Your task to perform on an android device: uninstall "VLC for Android" Image 0: 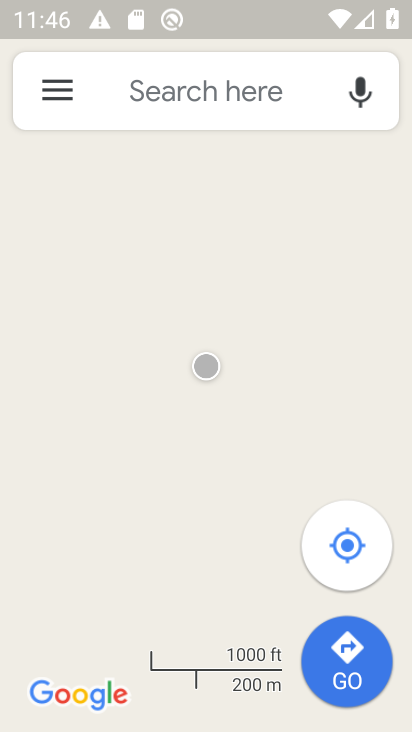
Step 0: press home button
Your task to perform on an android device: uninstall "VLC for Android" Image 1: 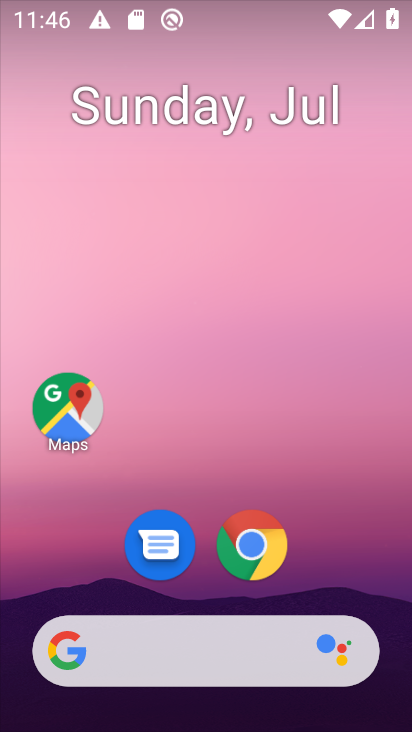
Step 1: drag from (175, 463) to (186, 344)
Your task to perform on an android device: uninstall "VLC for Android" Image 2: 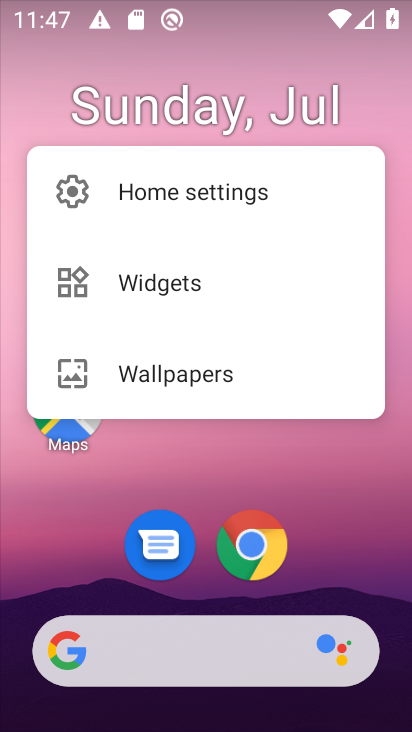
Step 2: drag from (192, 614) to (253, 4)
Your task to perform on an android device: uninstall "VLC for Android" Image 3: 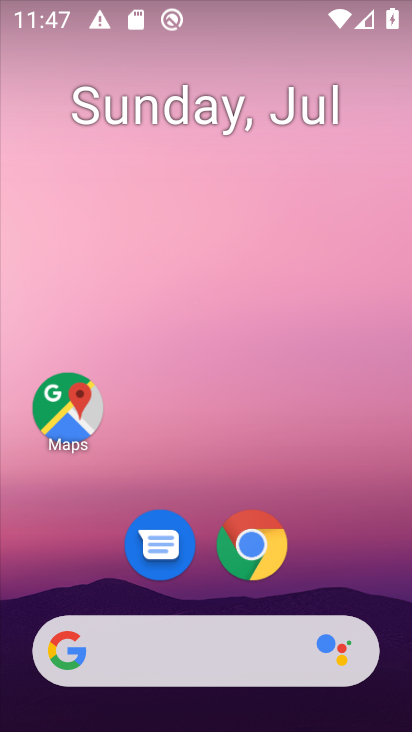
Step 3: drag from (174, 615) to (175, 442)
Your task to perform on an android device: uninstall "VLC for Android" Image 4: 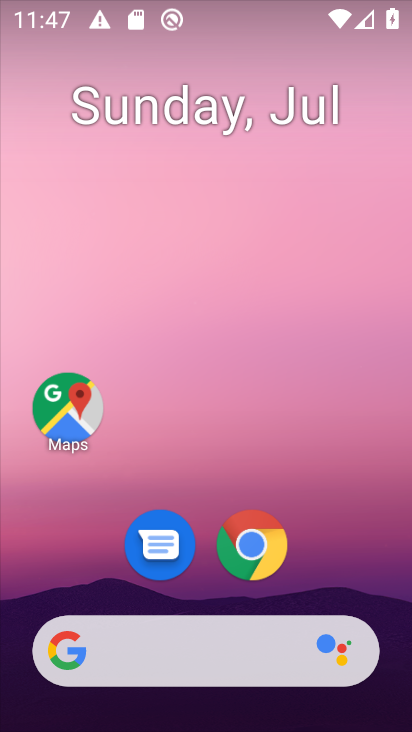
Step 4: drag from (234, 619) to (307, 62)
Your task to perform on an android device: uninstall "VLC for Android" Image 5: 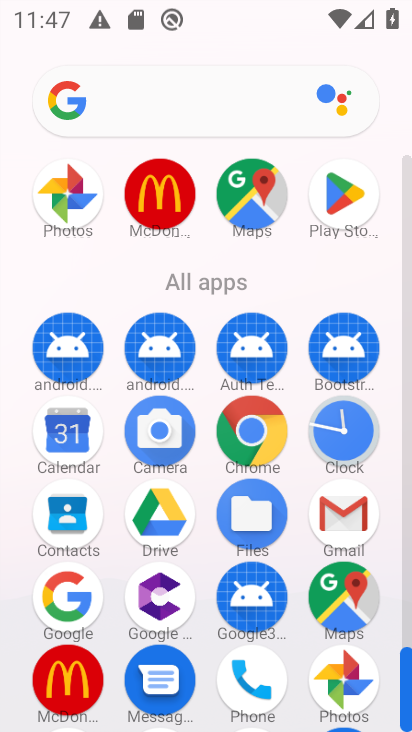
Step 5: click (354, 195)
Your task to perform on an android device: uninstall "VLC for Android" Image 6: 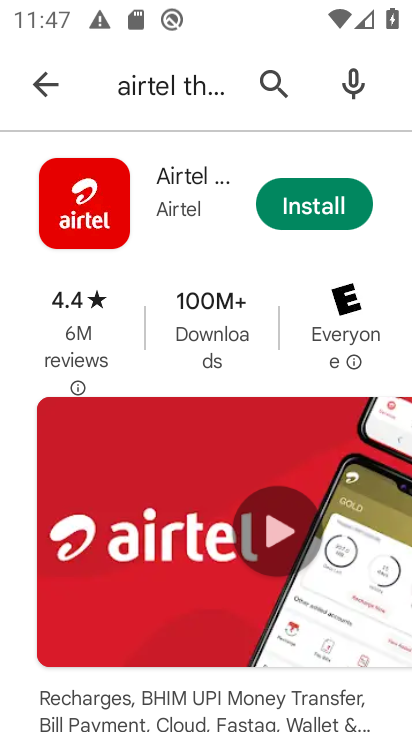
Step 6: drag from (276, 90) to (339, 90)
Your task to perform on an android device: uninstall "VLC for Android" Image 7: 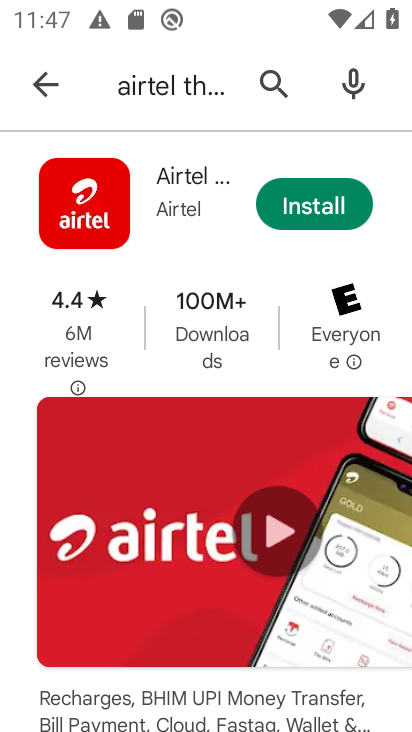
Step 7: click (278, 78)
Your task to perform on an android device: uninstall "VLC for Android" Image 8: 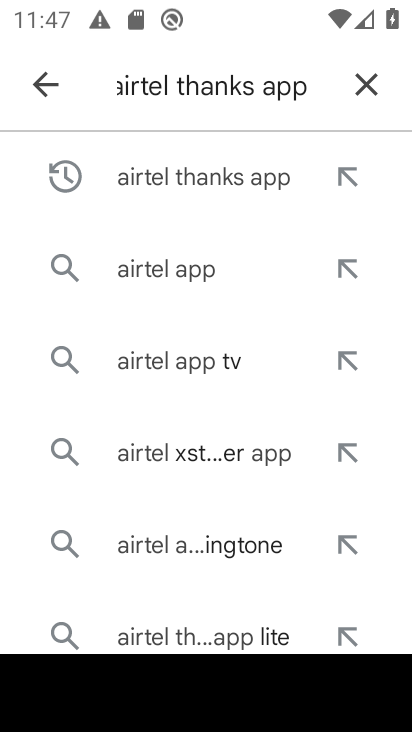
Step 8: click (354, 98)
Your task to perform on an android device: uninstall "VLC for Android" Image 9: 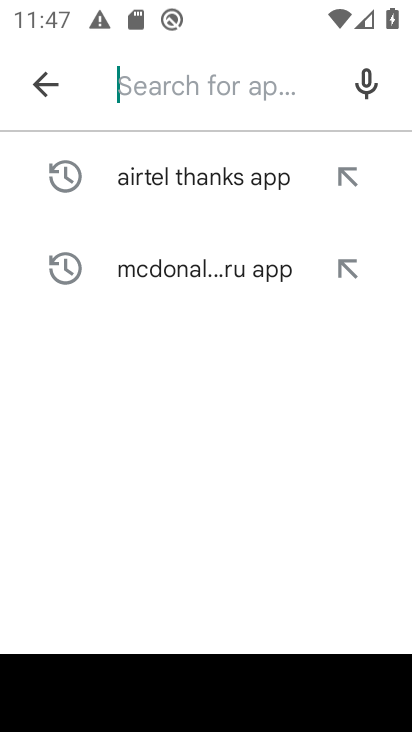
Step 9: type "VLC for Android"
Your task to perform on an android device: uninstall "VLC for Android" Image 10: 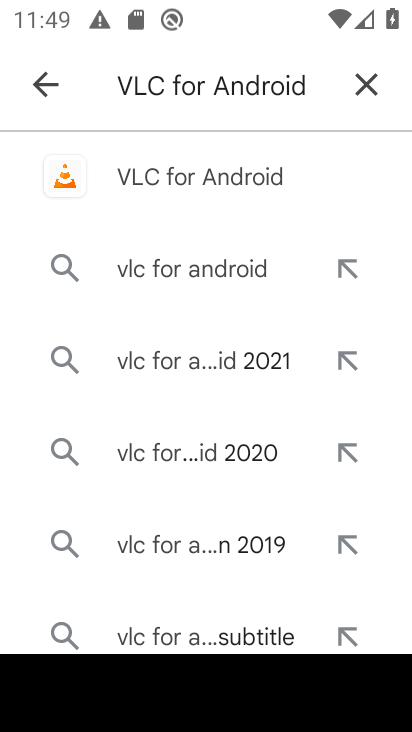
Step 10: click (251, 172)
Your task to perform on an android device: uninstall "VLC for Android" Image 11: 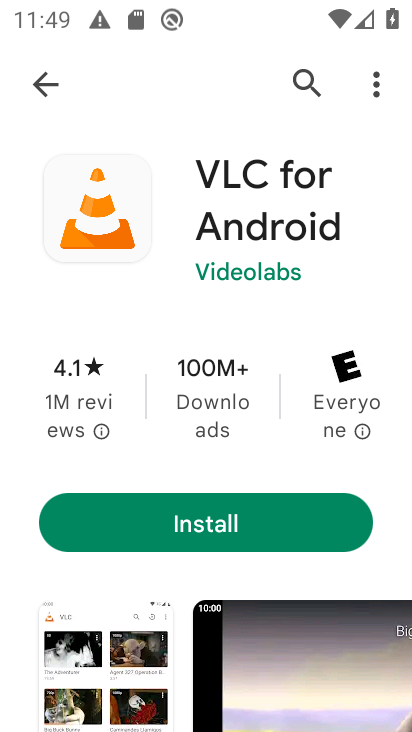
Step 11: task complete